Your task to perform on an android device: change keyboard looks Image 0: 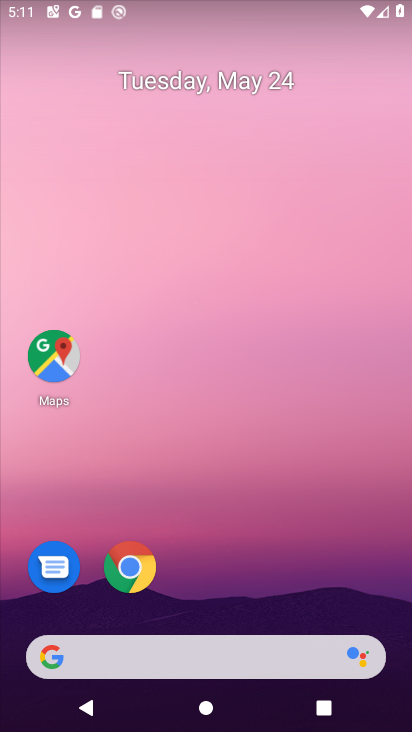
Step 0: drag from (234, 577) to (211, 59)
Your task to perform on an android device: change keyboard looks Image 1: 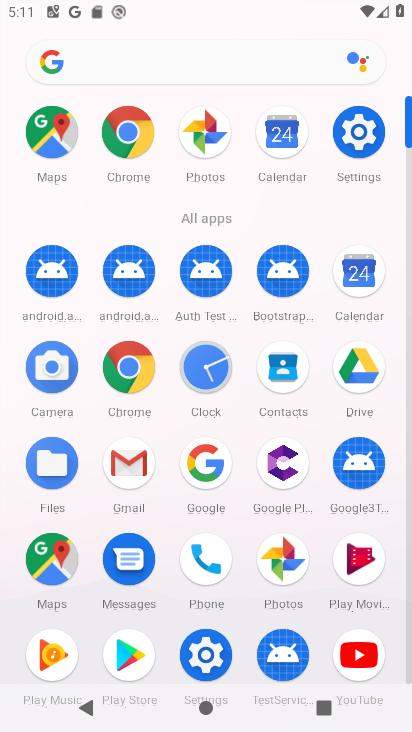
Step 1: click (358, 134)
Your task to perform on an android device: change keyboard looks Image 2: 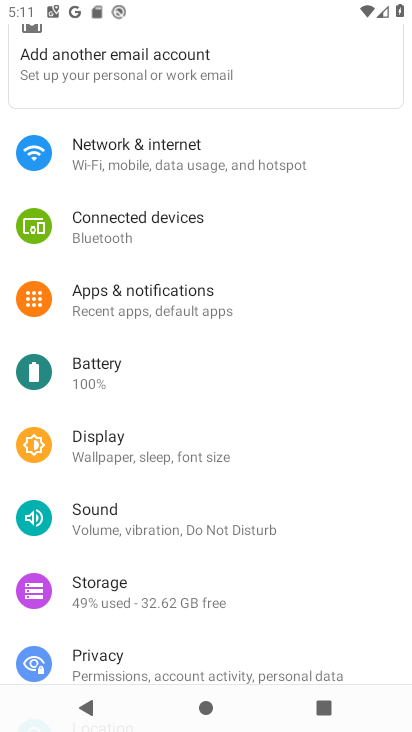
Step 2: drag from (141, 376) to (197, 282)
Your task to perform on an android device: change keyboard looks Image 3: 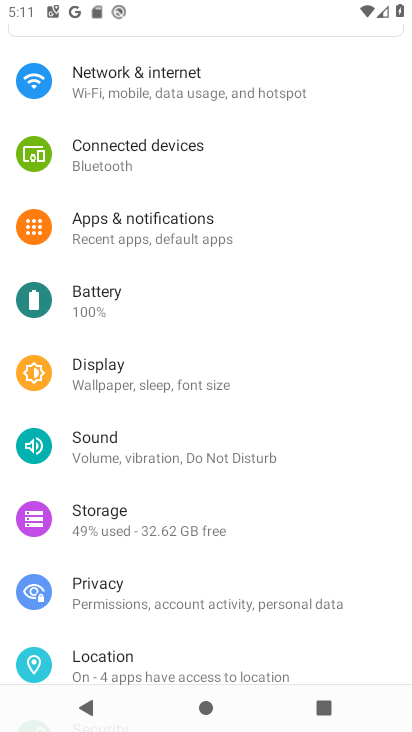
Step 3: drag from (148, 426) to (213, 340)
Your task to perform on an android device: change keyboard looks Image 4: 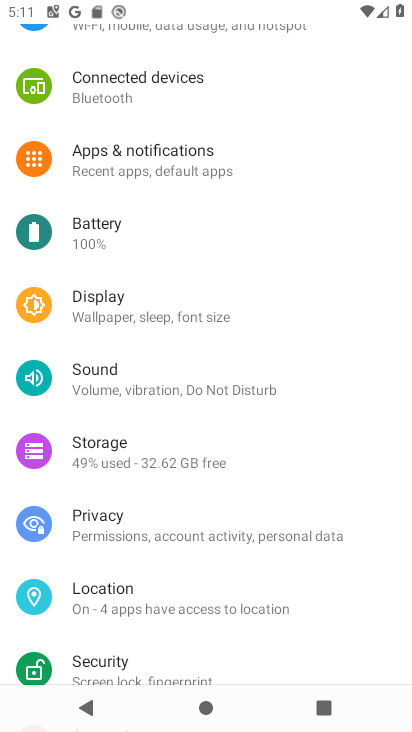
Step 4: drag from (153, 423) to (224, 338)
Your task to perform on an android device: change keyboard looks Image 5: 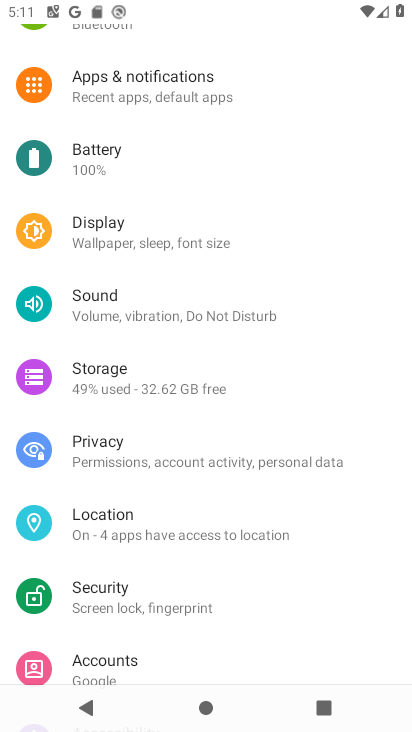
Step 5: drag from (144, 424) to (207, 349)
Your task to perform on an android device: change keyboard looks Image 6: 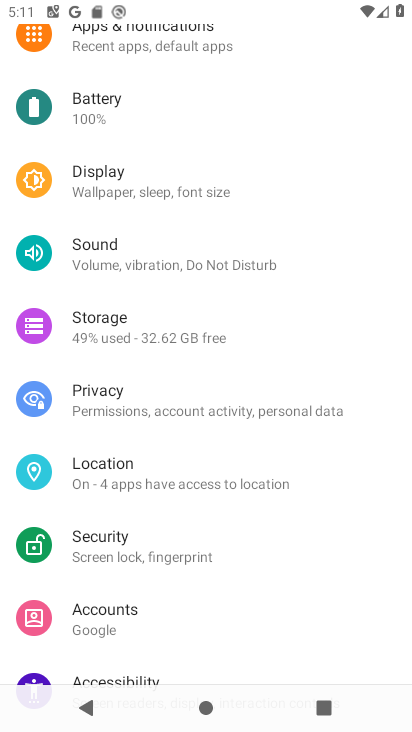
Step 6: drag from (138, 444) to (205, 350)
Your task to perform on an android device: change keyboard looks Image 7: 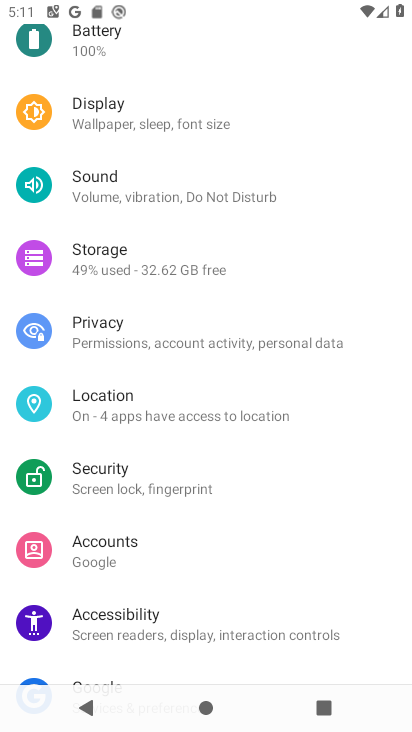
Step 7: drag from (139, 448) to (204, 363)
Your task to perform on an android device: change keyboard looks Image 8: 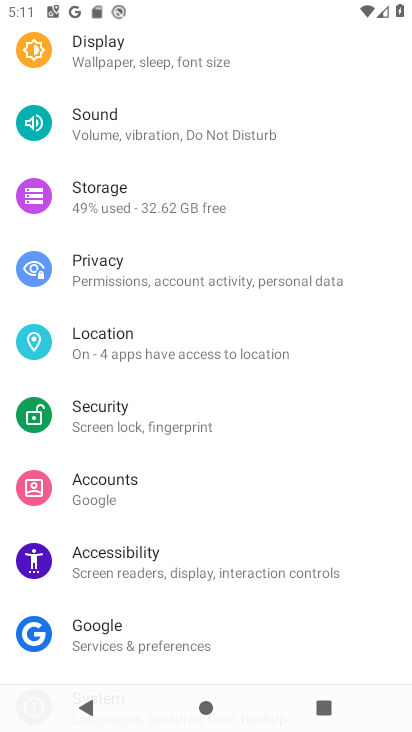
Step 8: drag from (146, 502) to (218, 401)
Your task to perform on an android device: change keyboard looks Image 9: 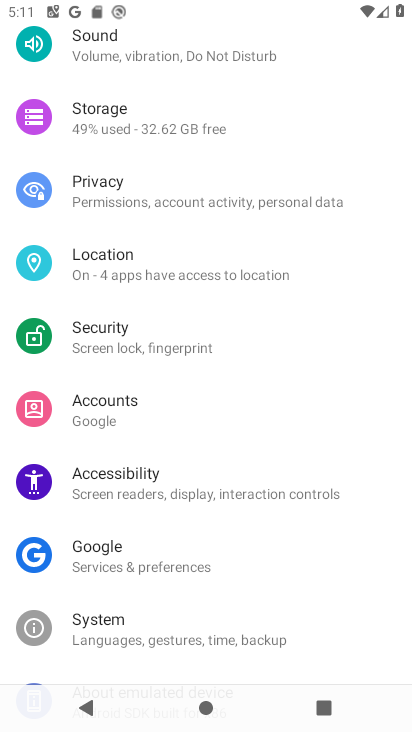
Step 9: click (129, 634)
Your task to perform on an android device: change keyboard looks Image 10: 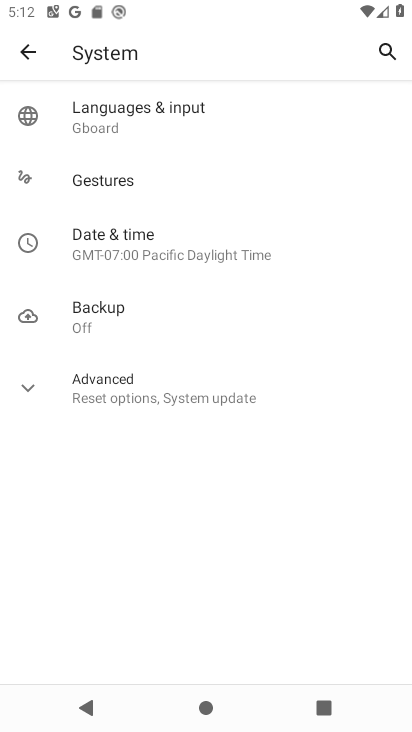
Step 10: click (112, 121)
Your task to perform on an android device: change keyboard looks Image 11: 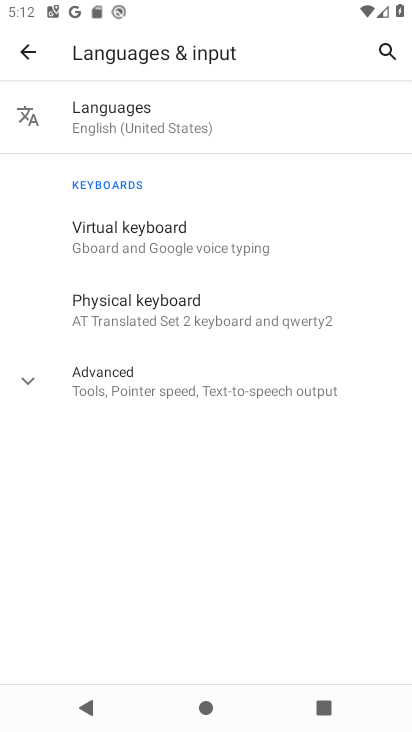
Step 11: click (137, 251)
Your task to perform on an android device: change keyboard looks Image 12: 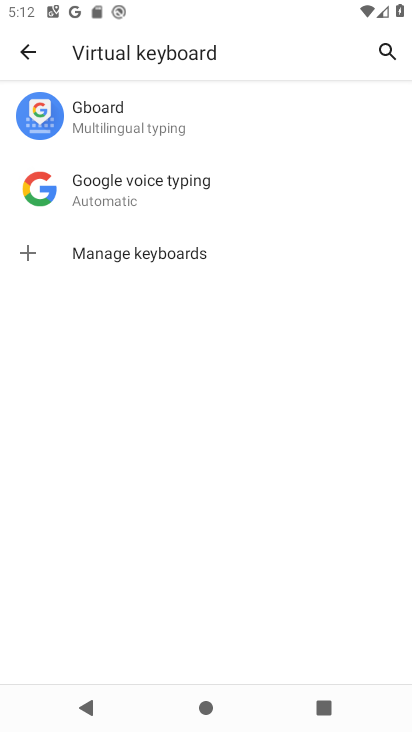
Step 12: click (111, 131)
Your task to perform on an android device: change keyboard looks Image 13: 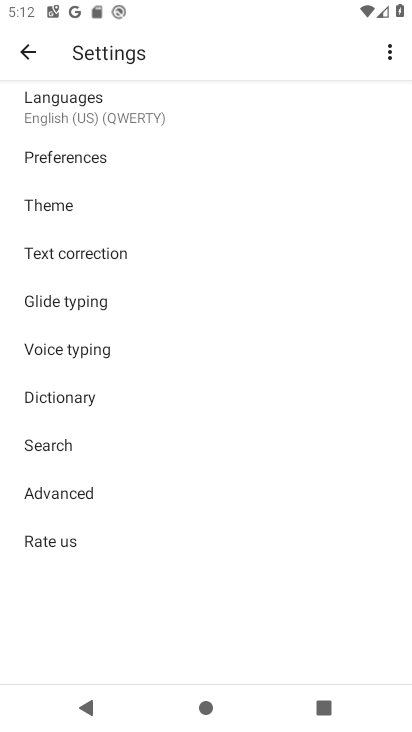
Step 13: click (62, 201)
Your task to perform on an android device: change keyboard looks Image 14: 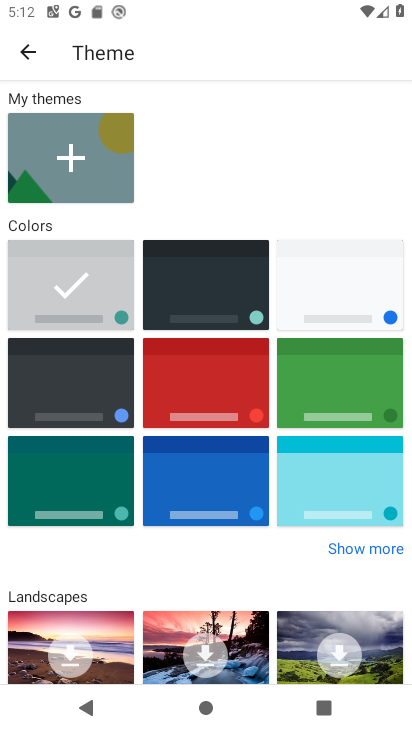
Step 14: click (196, 362)
Your task to perform on an android device: change keyboard looks Image 15: 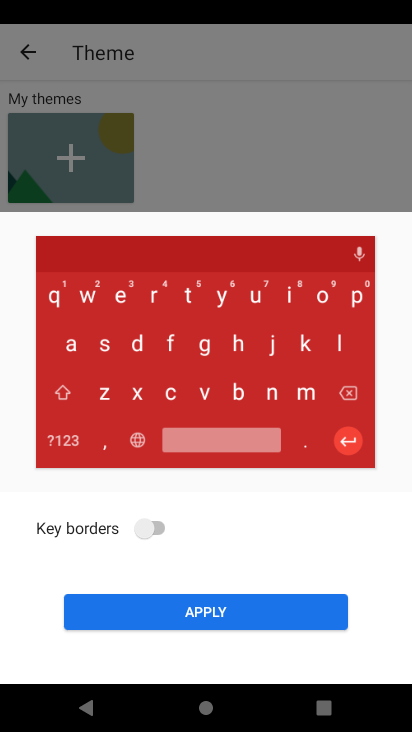
Step 15: click (146, 526)
Your task to perform on an android device: change keyboard looks Image 16: 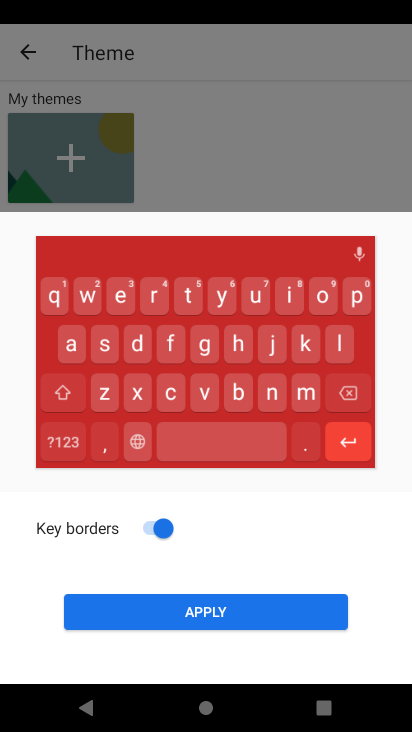
Step 16: click (208, 614)
Your task to perform on an android device: change keyboard looks Image 17: 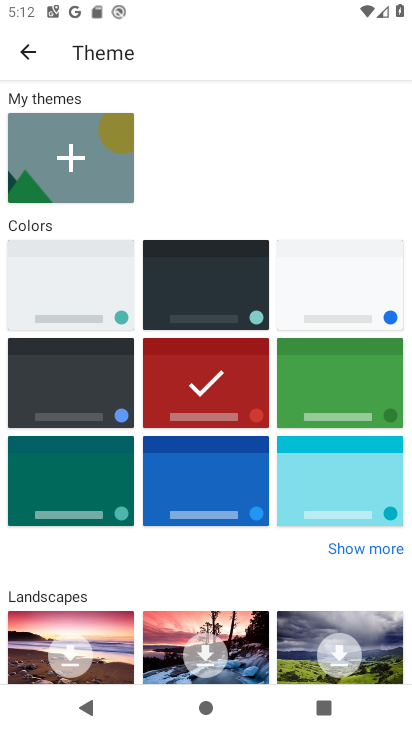
Step 17: task complete